Your task to perform on an android device: see sites visited before in the chrome app Image 0: 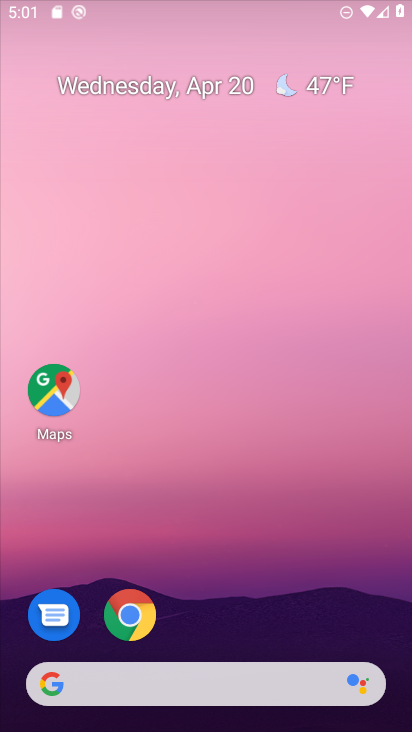
Step 0: drag from (225, 573) to (217, 42)
Your task to perform on an android device: see sites visited before in the chrome app Image 1: 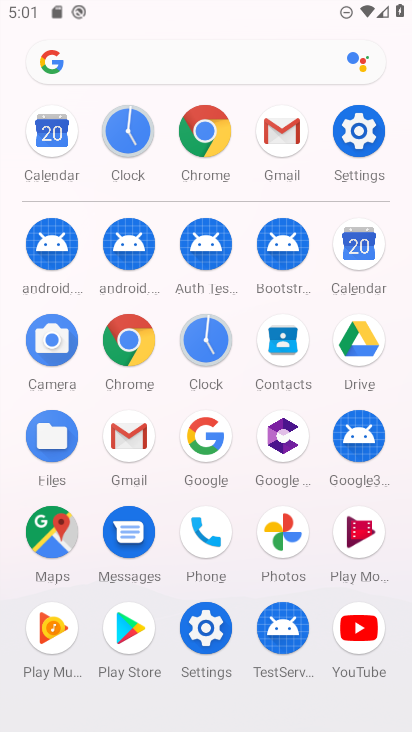
Step 1: click (206, 431)
Your task to perform on an android device: see sites visited before in the chrome app Image 2: 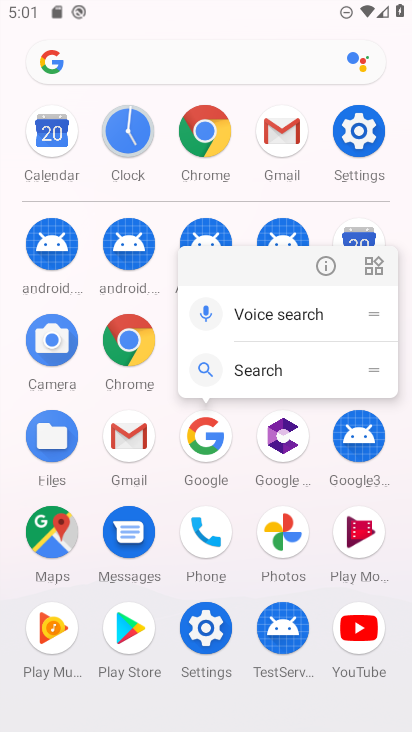
Step 2: click (208, 436)
Your task to perform on an android device: see sites visited before in the chrome app Image 3: 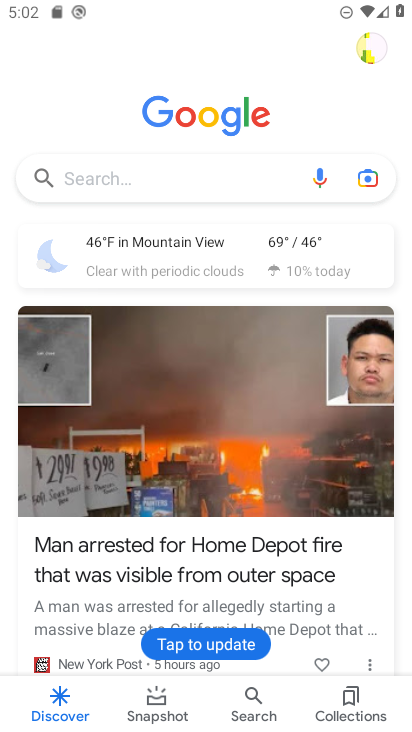
Step 3: click (208, 435)
Your task to perform on an android device: see sites visited before in the chrome app Image 4: 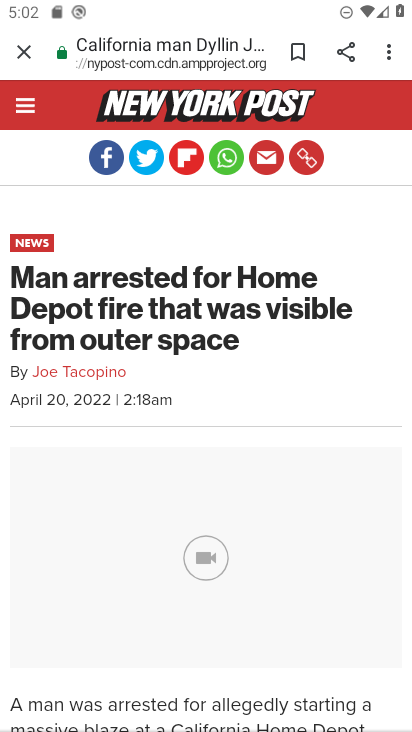
Step 4: press home button
Your task to perform on an android device: see sites visited before in the chrome app Image 5: 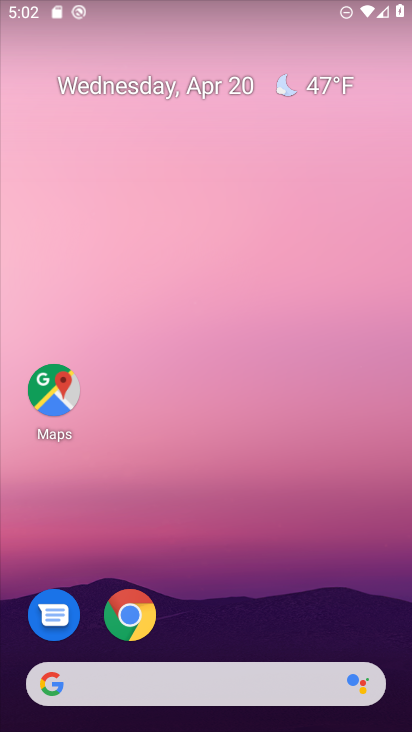
Step 5: click (125, 621)
Your task to perform on an android device: see sites visited before in the chrome app Image 6: 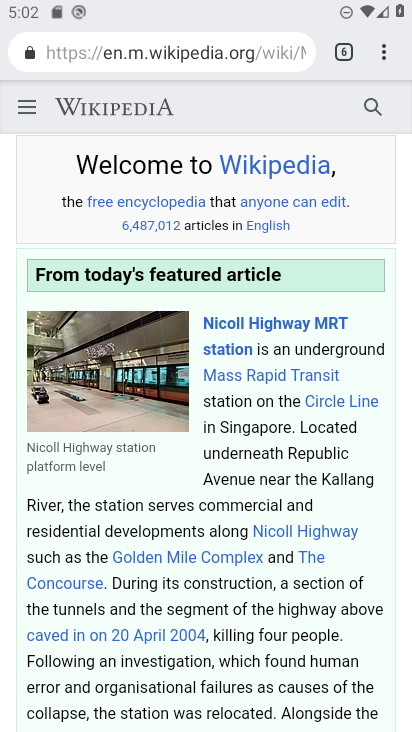
Step 6: click (386, 49)
Your task to perform on an android device: see sites visited before in the chrome app Image 7: 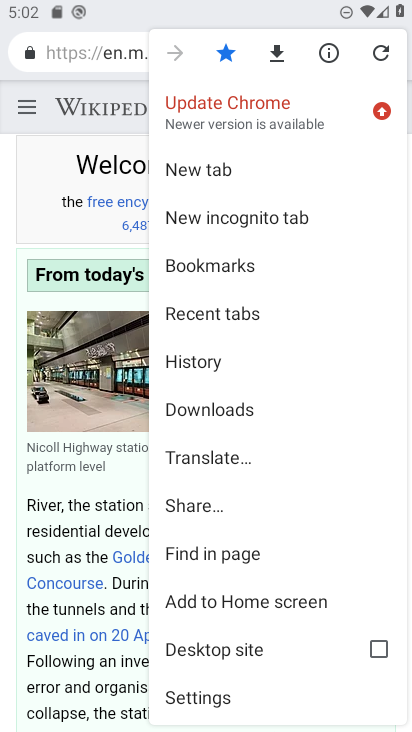
Step 7: click (200, 367)
Your task to perform on an android device: see sites visited before in the chrome app Image 8: 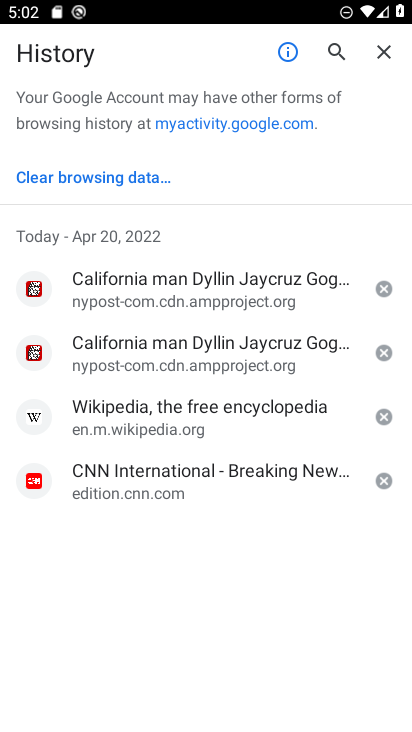
Step 8: task complete